Your task to perform on an android device: turn on the 24-hour format for clock Image 0: 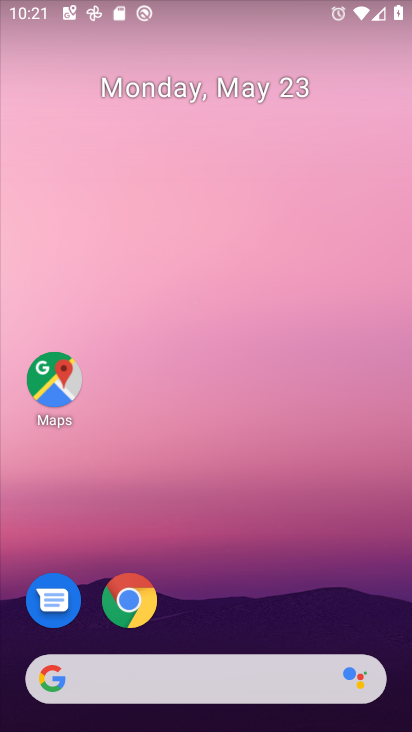
Step 0: drag from (210, 686) to (194, 113)
Your task to perform on an android device: turn on the 24-hour format for clock Image 1: 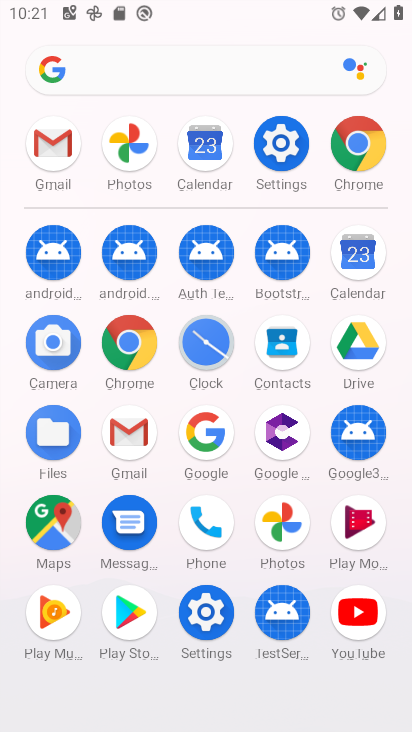
Step 1: click (210, 353)
Your task to perform on an android device: turn on the 24-hour format for clock Image 2: 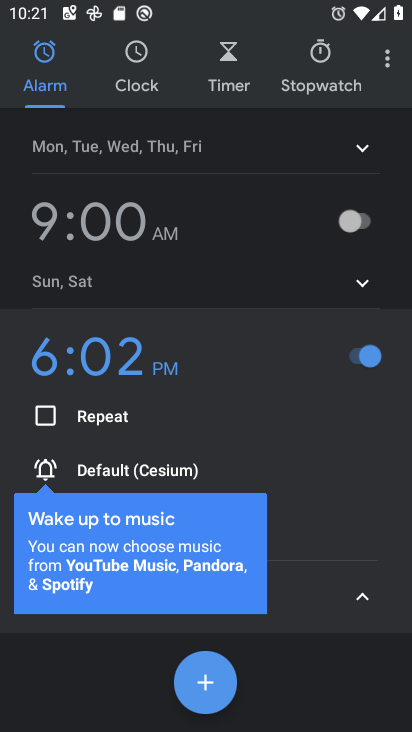
Step 2: click (390, 62)
Your task to perform on an android device: turn on the 24-hour format for clock Image 3: 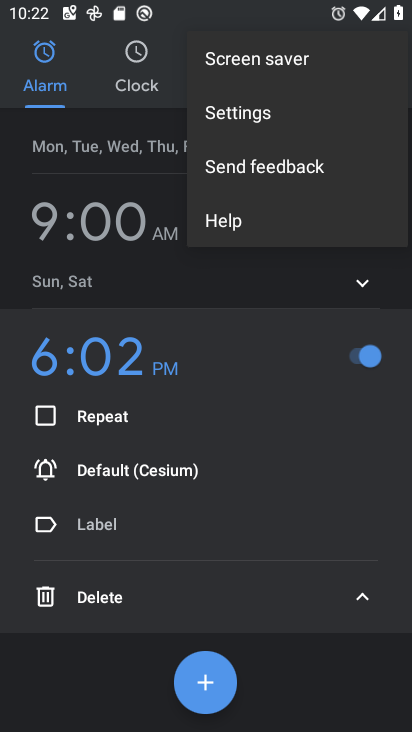
Step 3: click (241, 112)
Your task to perform on an android device: turn on the 24-hour format for clock Image 4: 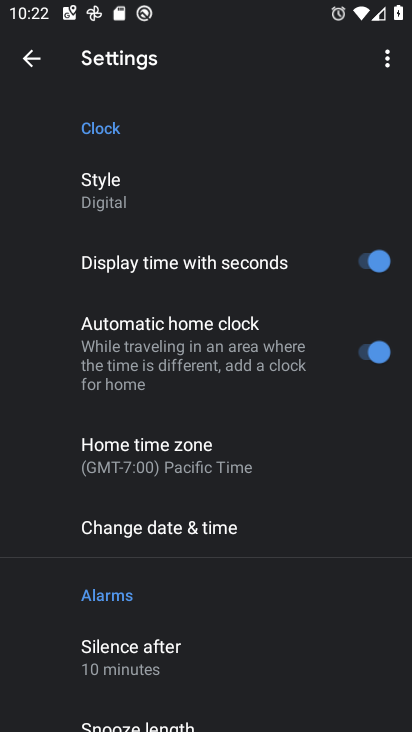
Step 4: click (134, 531)
Your task to perform on an android device: turn on the 24-hour format for clock Image 5: 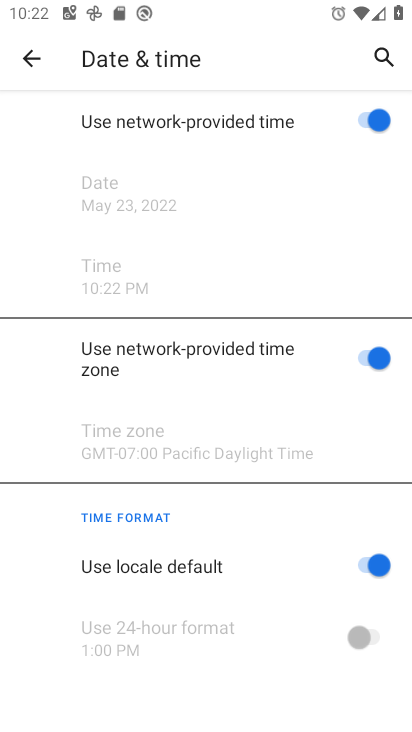
Step 5: click (362, 564)
Your task to perform on an android device: turn on the 24-hour format for clock Image 6: 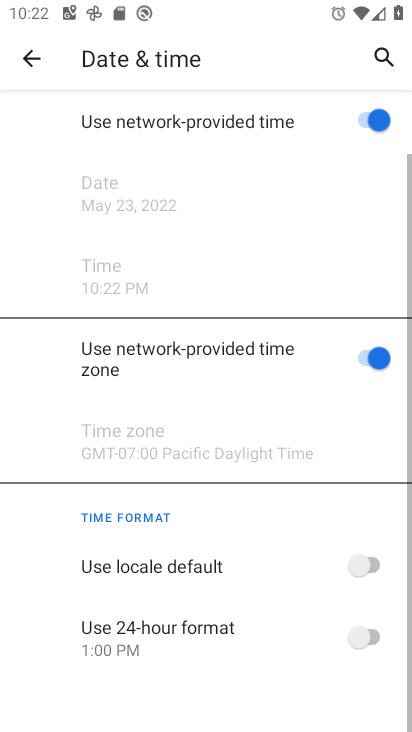
Step 6: click (373, 637)
Your task to perform on an android device: turn on the 24-hour format for clock Image 7: 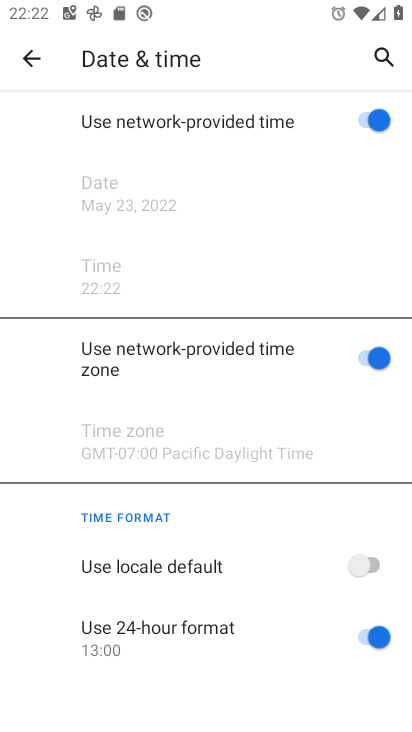
Step 7: task complete